Your task to perform on an android device: snooze an email in the gmail app Image 0: 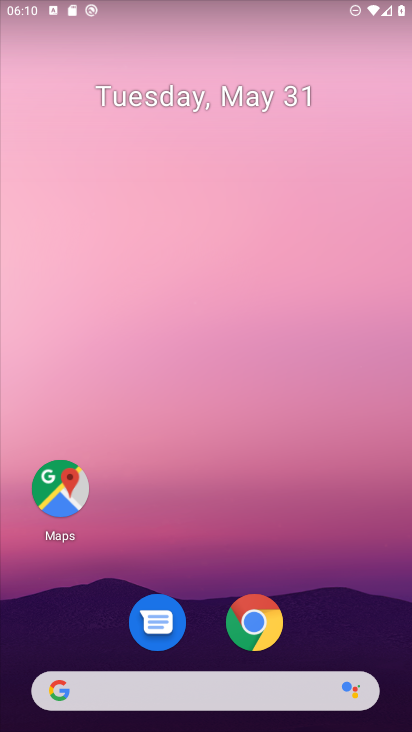
Step 0: drag from (307, 683) to (208, 5)
Your task to perform on an android device: snooze an email in the gmail app Image 1: 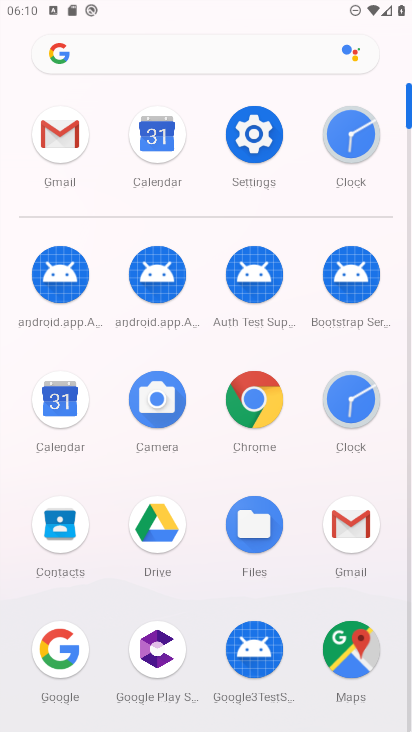
Step 1: click (349, 526)
Your task to perform on an android device: snooze an email in the gmail app Image 2: 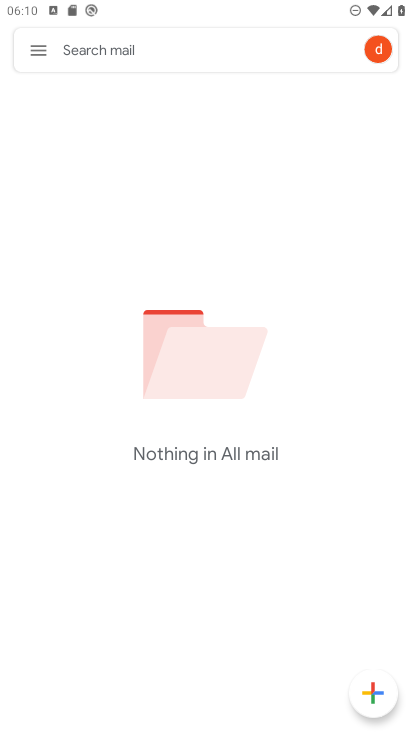
Step 2: click (39, 35)
Your task to perform on an android device: snooze an email in the gmail app Image 3: 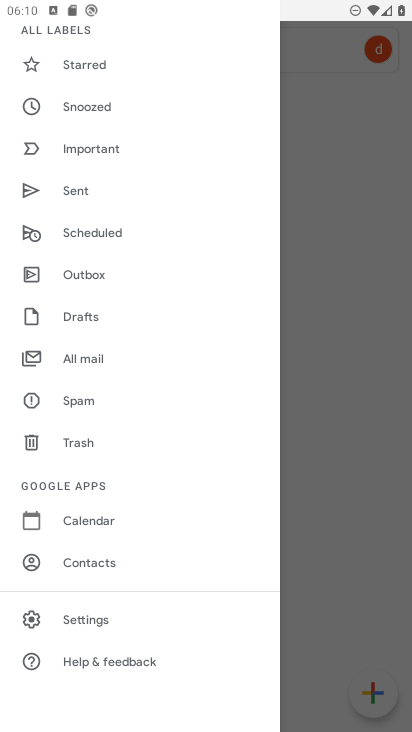
Step 3: click (83, 99)
Your task to perform on an android device: snooze an email in the gmail app Image 4: 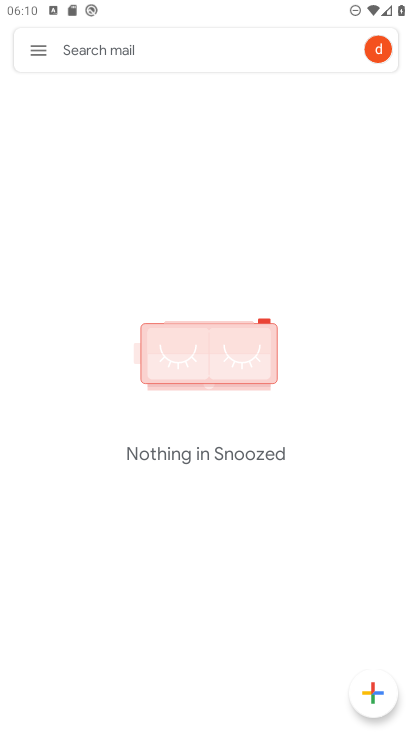
Step 4: task complete